Your task to perform on an android device: Open eBay Image 0: 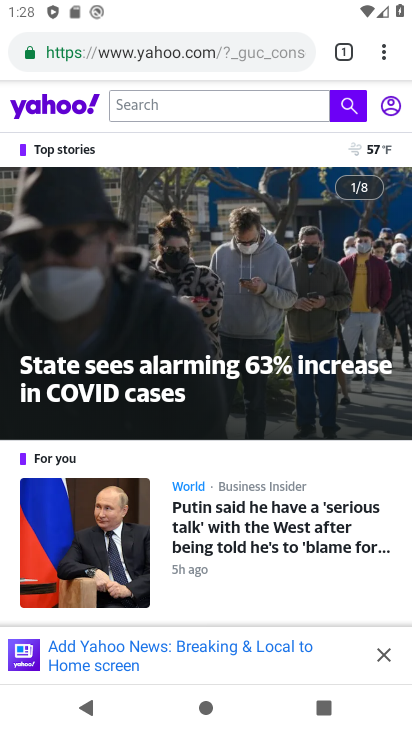
Step 0: press home button
Your task to perform on an android device: Open eBay Image 1: 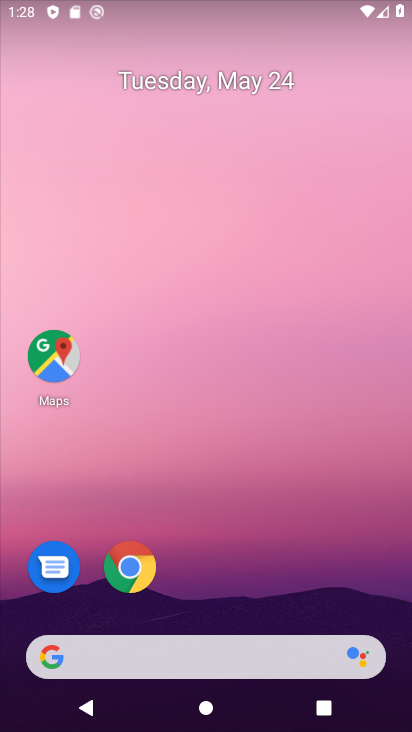
Step 1: click (136, 583)
Your task to perform on an android device: Open eBay Image 2: 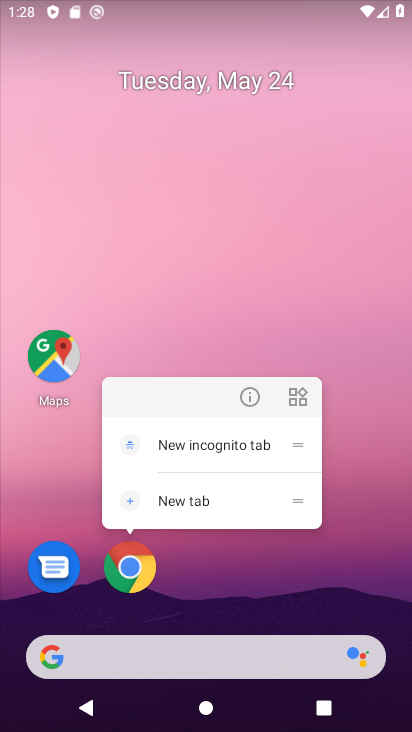
Step 2: click (136, 581)
Your task to perform on an android device: Open eBay Image 3: 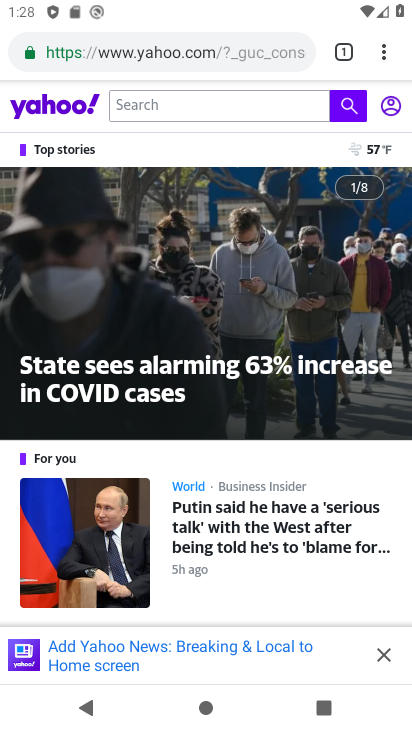
Step 3: click (184, 45)
Your task to perform on an android device: Open eBay Image 4: 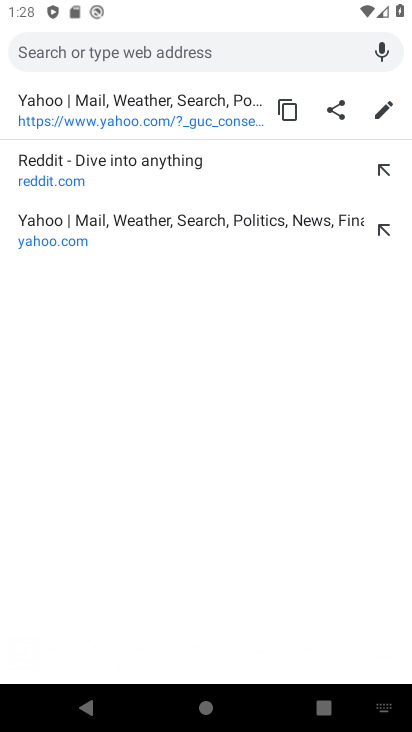
Step 4: type "eBay"
Your task to perform on an android device: Open eBay Image 5: 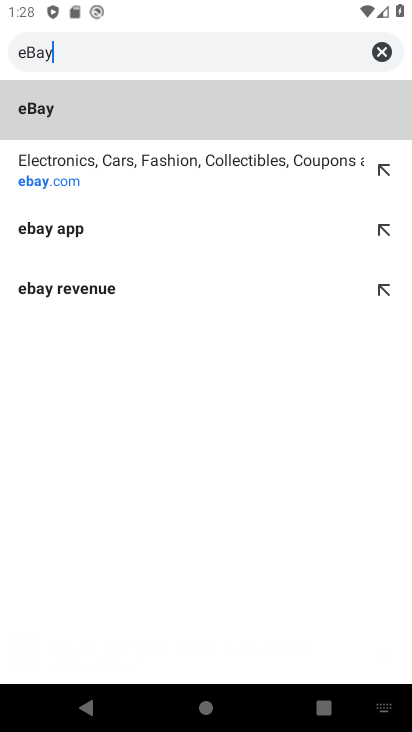
Step 5: click (143, 113)
Your task to perform on an android device: Open eBay Image 6: 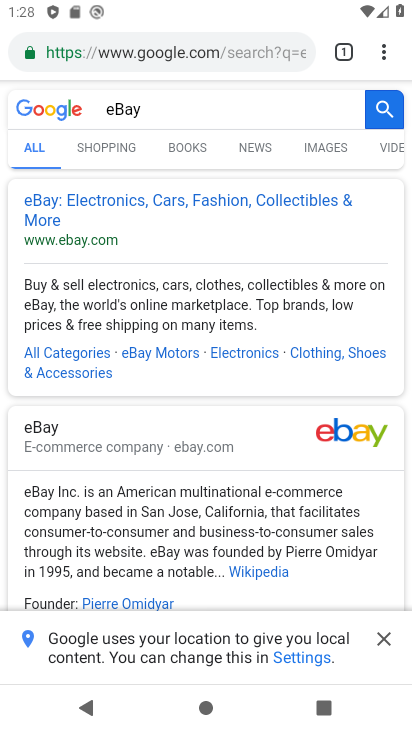
Step 6: task complete